Your task to perform on an android device: delete a single message in the gmail app Image 0: 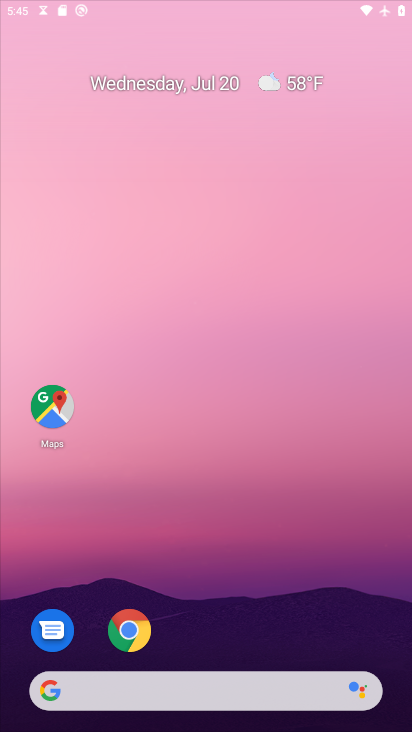
Step 0: press home button
Your task to perform on an android device: delete a single message in the gmail app Image 1: 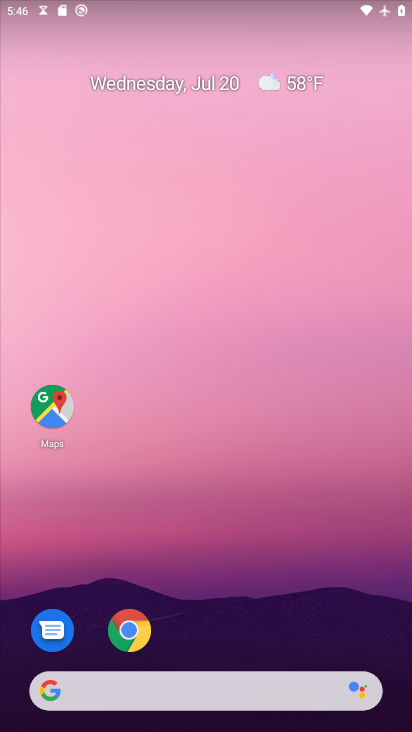
Step 1: drag from (181, 636) to (186, 6)
Your task to perform on an android device: delete a single message in the gmail app Image 2: 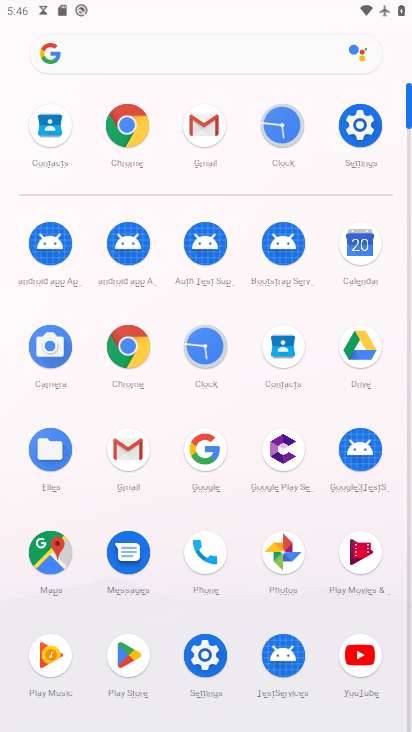
Step 2: click (194, 129)
Your task to perform on an android device: delete a single message in the gmail app Image 3: 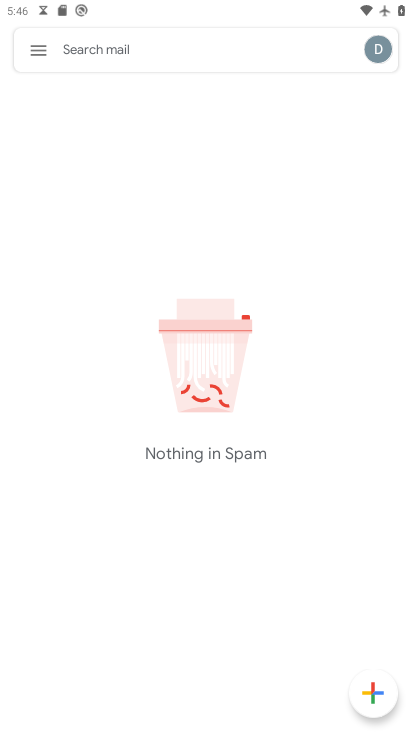
Step 3: click (32, 53)
Your task to perform on an android device: delete a single message in the gmail app Image 4: 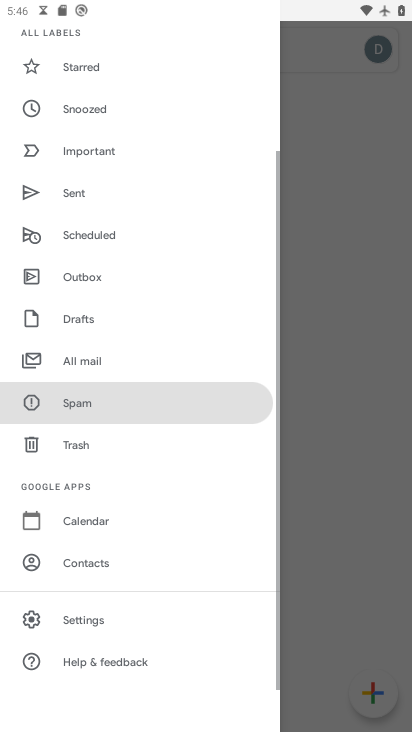
Step 4: click (63, 366)
Your task to perform on an android device: delete a single message in the gmail app Image 5: 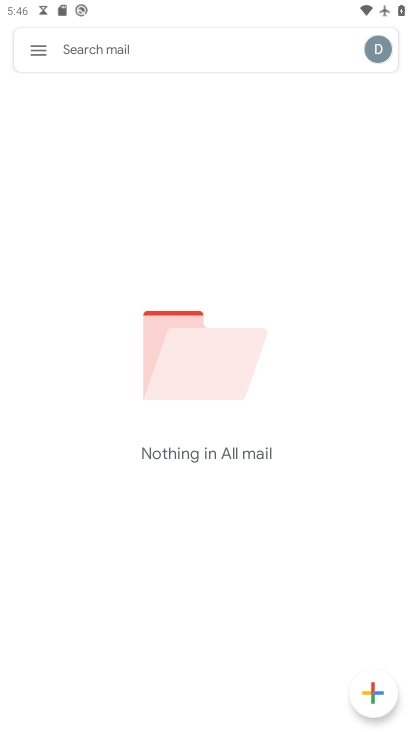
Step 5: task complete